Your task to perform on an android device: Show me recent news Image 0: 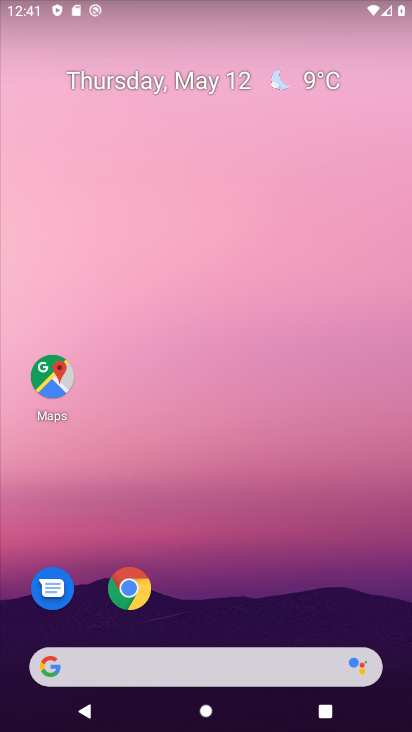
Step 0: drag from (10, 190) to (398, 323)
Your task to perform on an android device: Show me recent news Image 1: 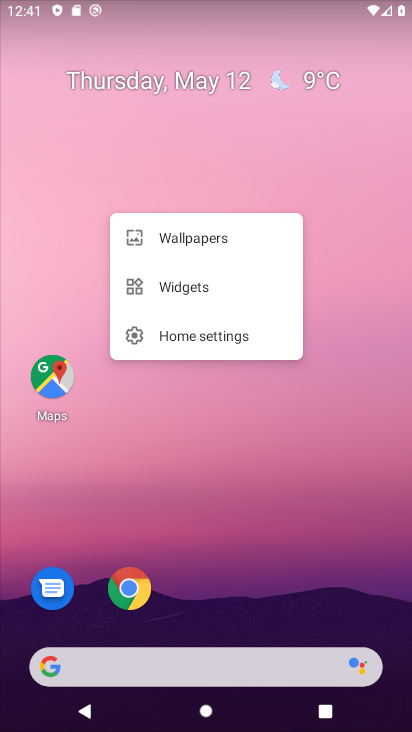
Step 1: task complete